Your task to perform on an android device: toggle location history Image 0: 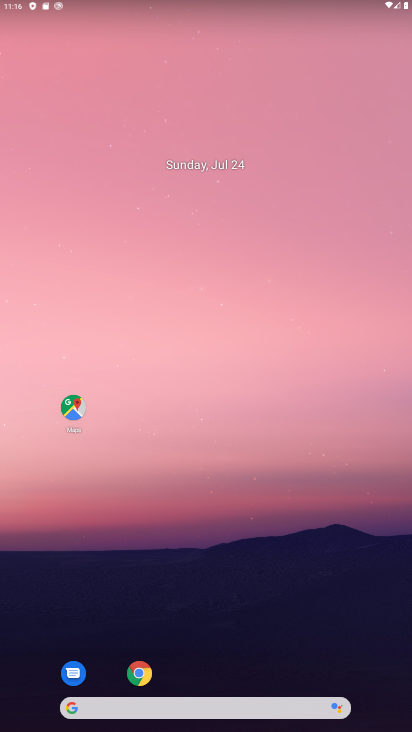
Step 0: drag from (190, 691) to (331, 195)
Your task to perform on an android device: toggle location history Image 1: 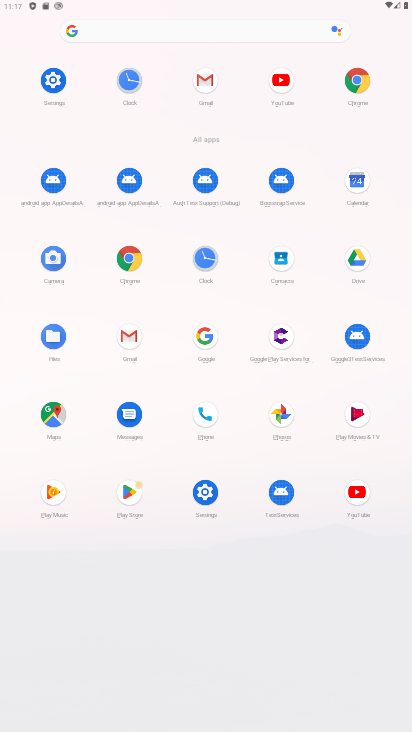
Step 1: click (202, 491)
Your task to perform on an android device: toggle location history Image 2: 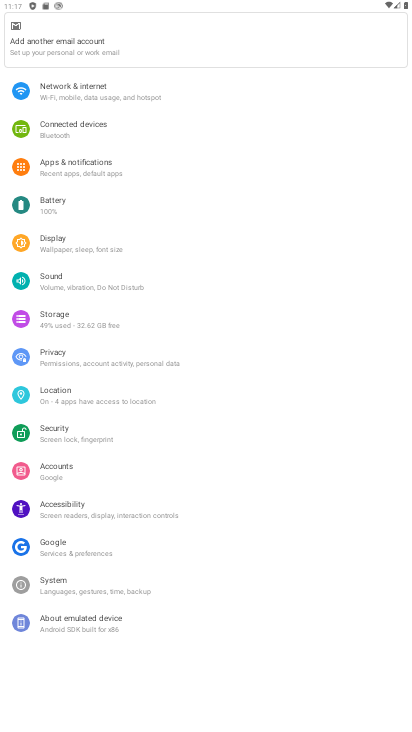
Step 2: click (96, 401)
Your task to perform on an android device: toggle location history Image 3: 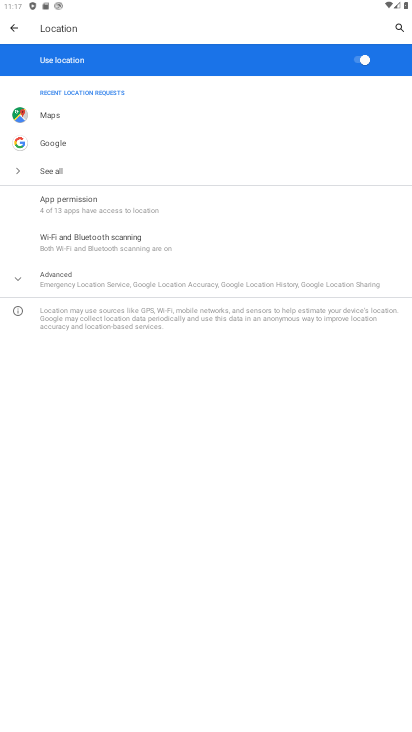
Step 3: click (97, 282)
Your task to perform on an android device: toggle location history Image 4: 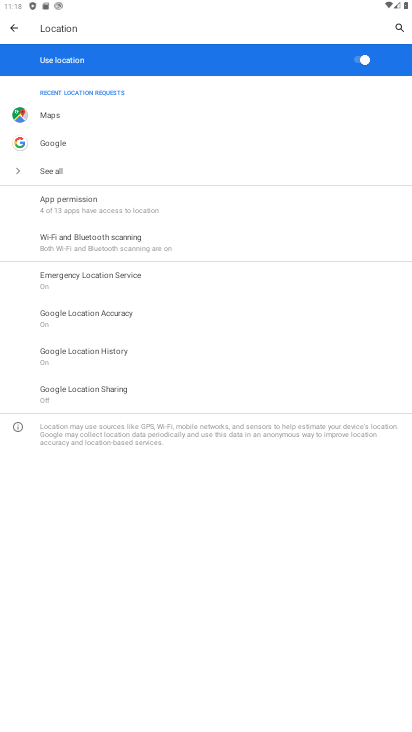
Step 4: click (121, 352)
Your task to perform on an android device: toggle location history Image 5: 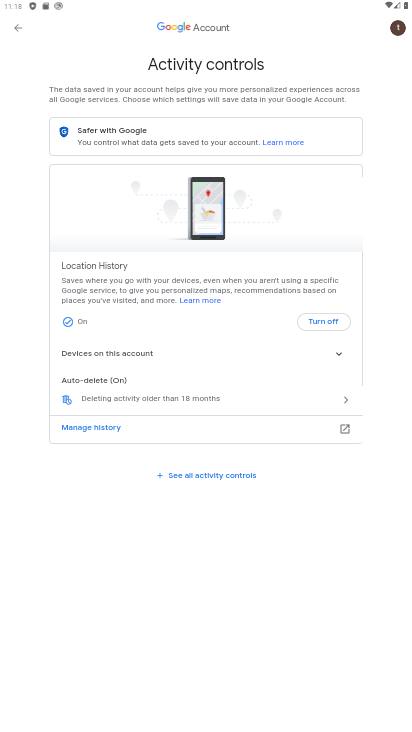
Step 5: click (328, 322)
Your task to perform on an android device: toggle location history Image 6: 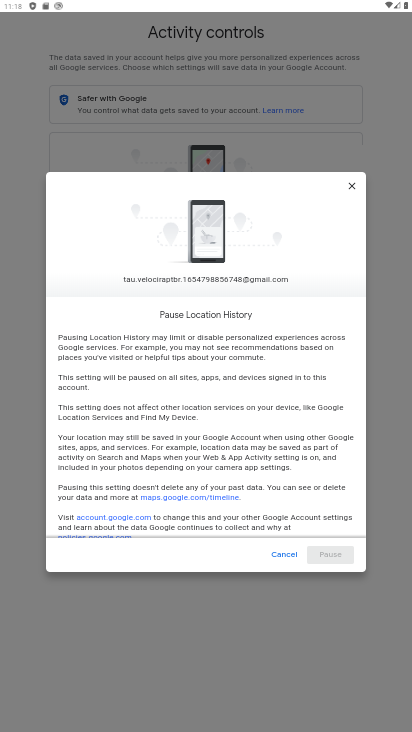
Step 6: drag from (280, 496) to (341, 328)
Your task to perform on an android device: toggle location history Image 7: 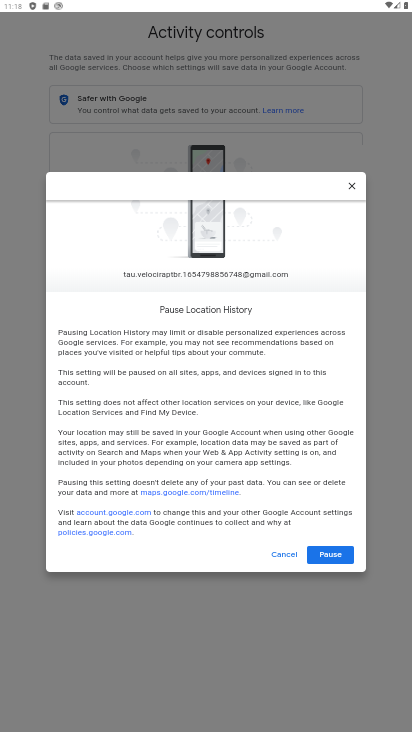
Step 7: click (334, 555)
Your task to perform on an android device: toggle location history Image 8: 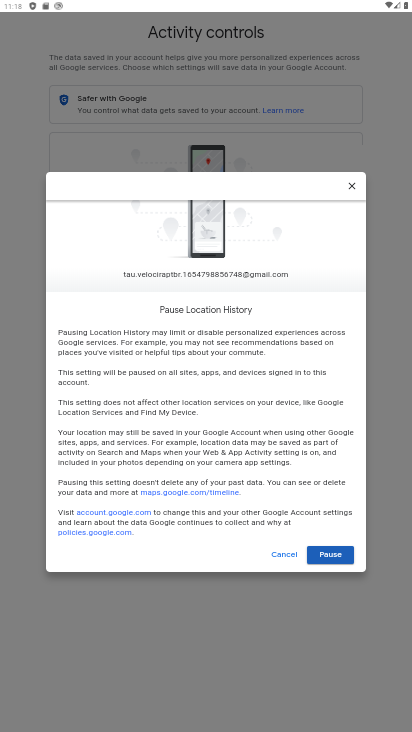
Step 8: click (332, 555)
Your task to perform on an android device: toggle location history Image 9: 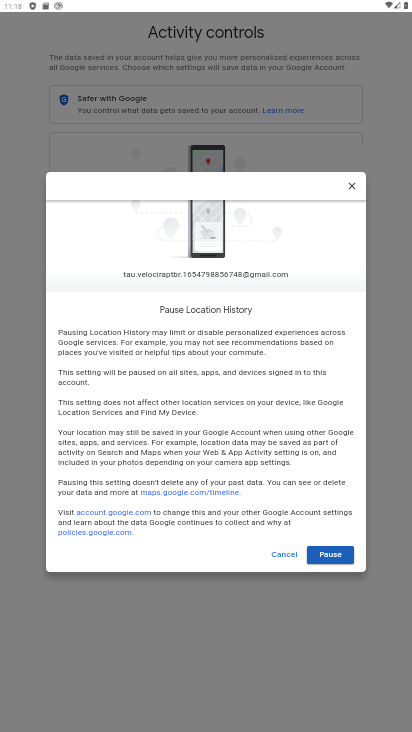
Step 9: click (330, 554)
Your task to perform on an android device: toggle location history Image 10: 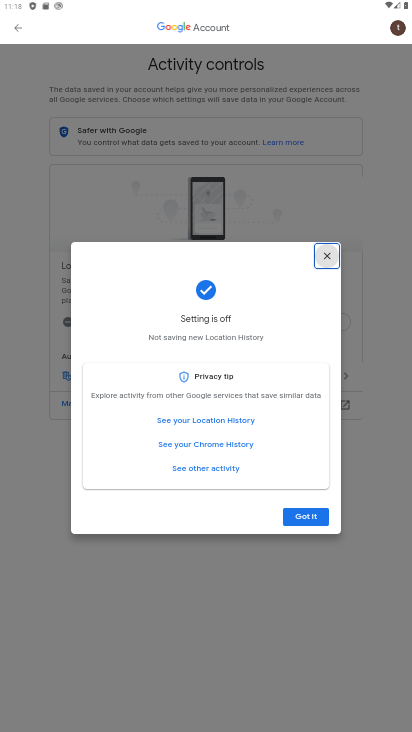
Step 10: click (298, 521)
Your task to perform on an android device: toggle location history Image 11: 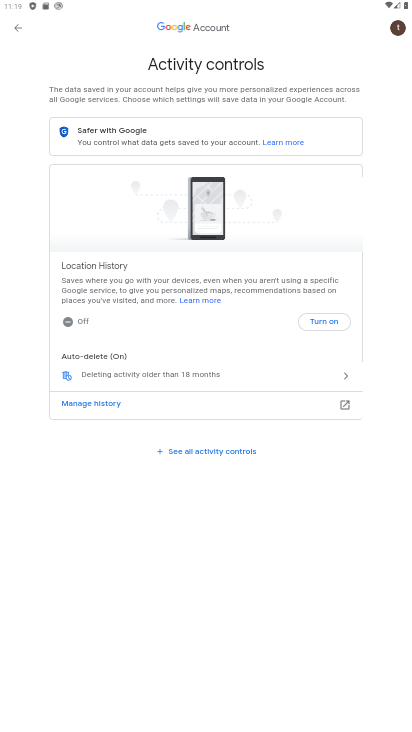
Step 11: task complete